Your task to perform on an android device: Check out the new ikea catalog. Image 0: 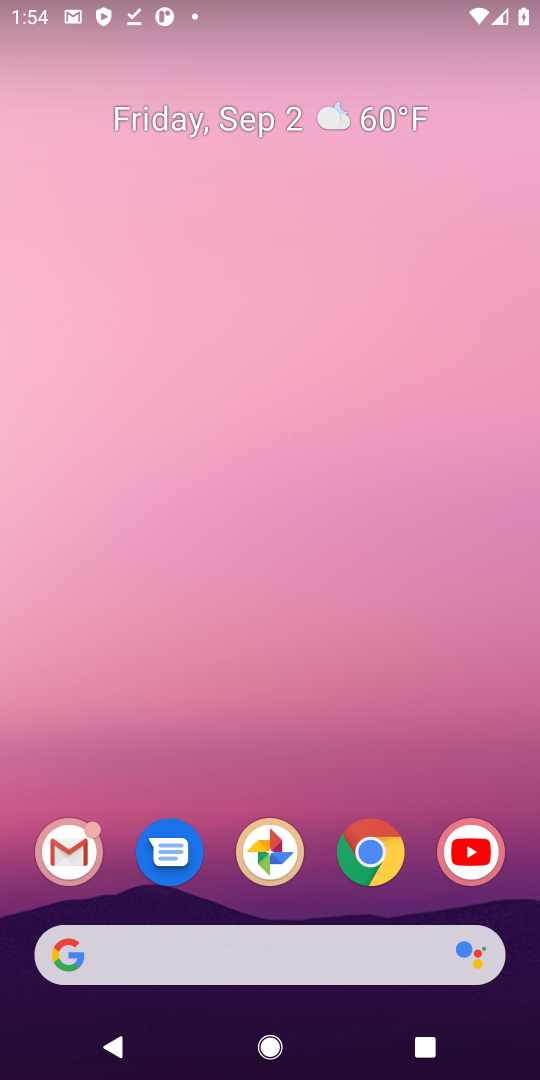
Step 0: drag from (375, 174) to (395, 15)
Your task to perform on an android device: Check out the new ikea catalog. Image 1: 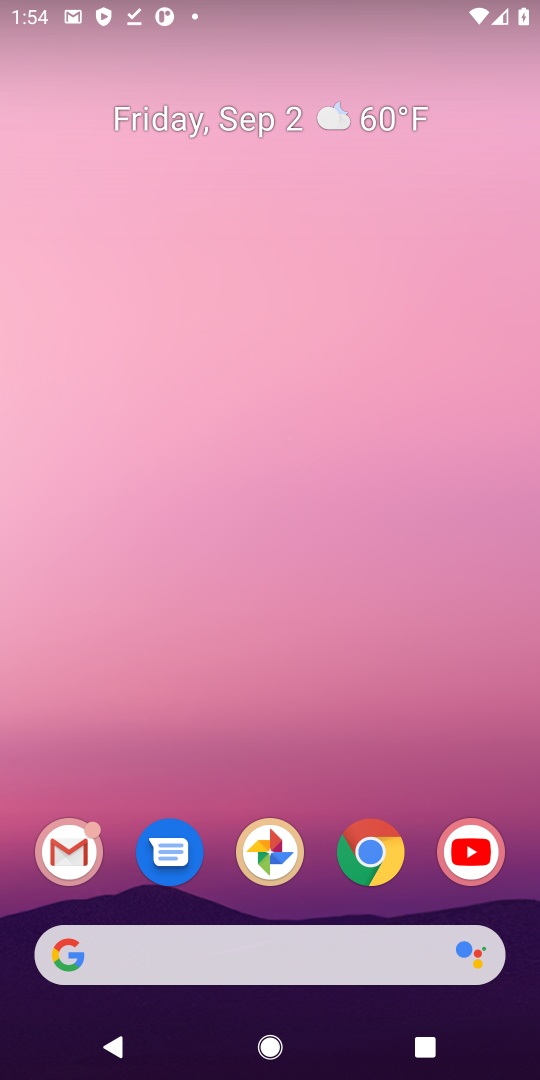
Step 1: drag from (292, 586) to (339, 17)
Your task to perform on an android device: Check out the new ikea catalog. Image 2: 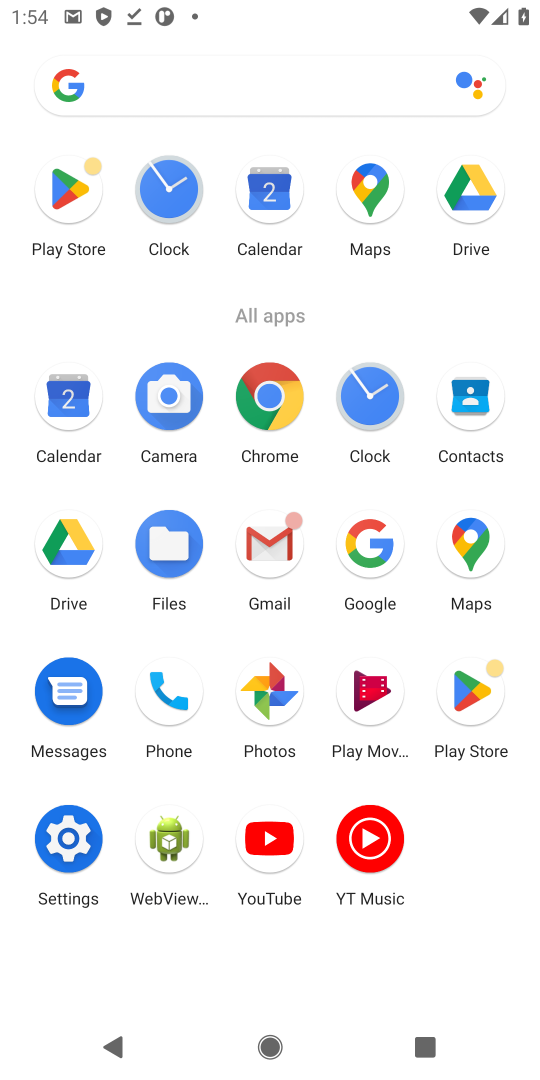
Step 2: click (275, 409)
Your task to perform on an android device: Check out the new ikea catalog. Image 3: 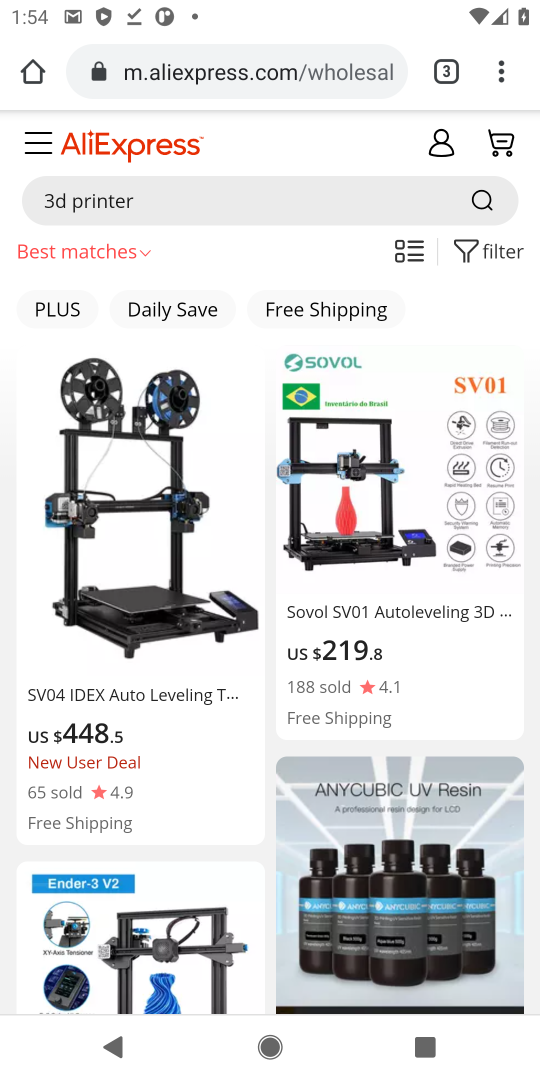
Step 3: click (271, 70)
Your task to perform on an android device: Check out the new ikea catalog. Image 4: 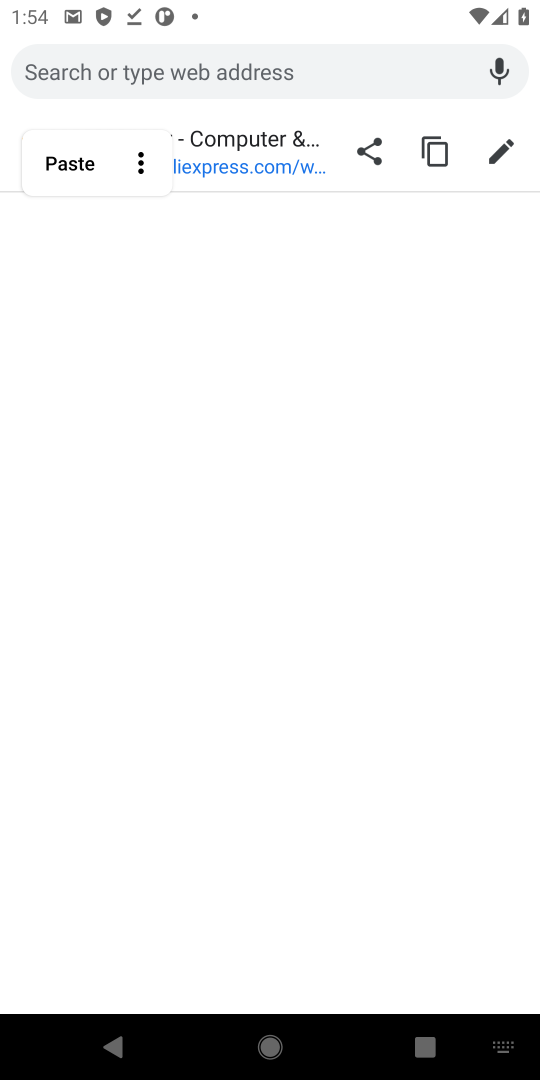
Step 4: type "new ikea catalog"
Your task to perform on an android device: Check out the new ikea catalog. Image 5: 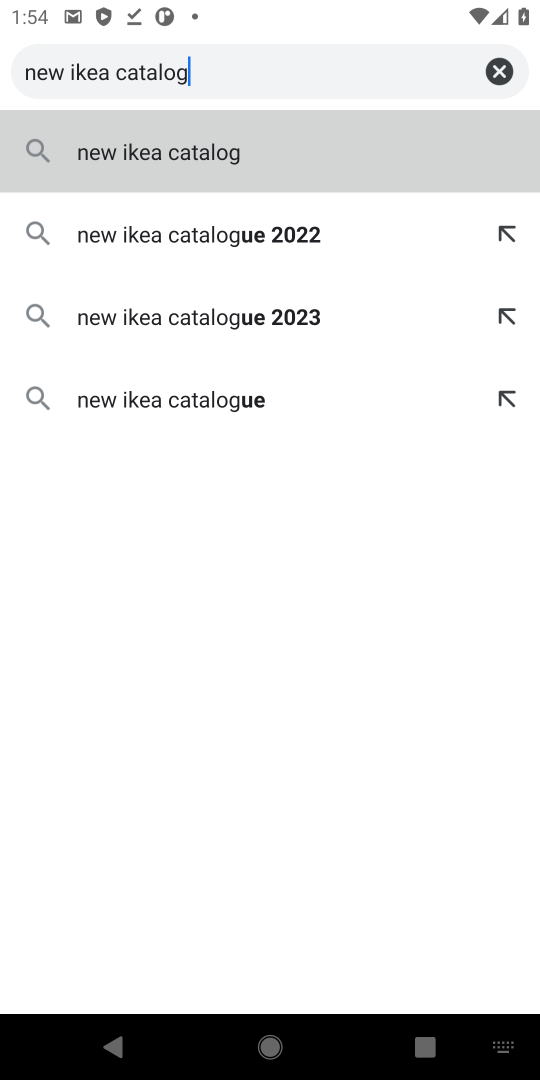
Step 5: press enter
Your task to perform on an android device: Check out the new ikea catalog. Image 6: 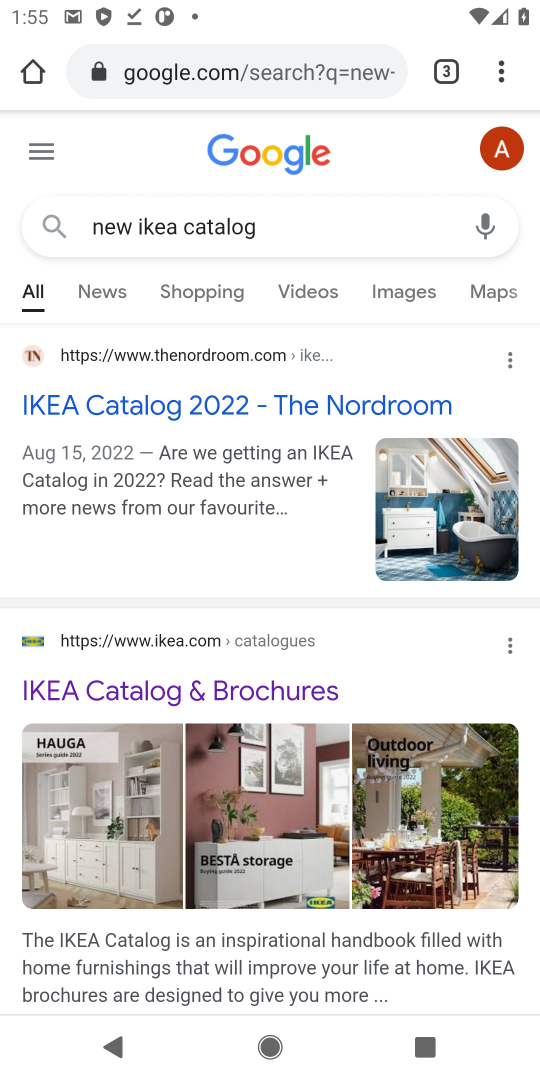
Step 6: click (231, 401)
Your task to perform on an android device: Check out the new ikea catalog. Image 7: 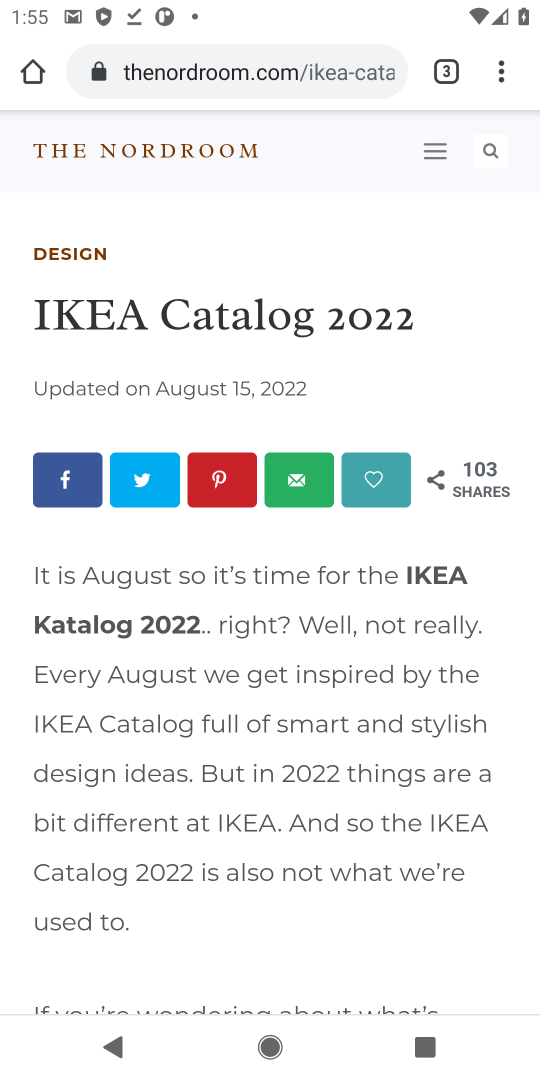
Step 7: click (212, 198)
Your task to perform on an android device: Check out the new ikea catalog. Image 8: 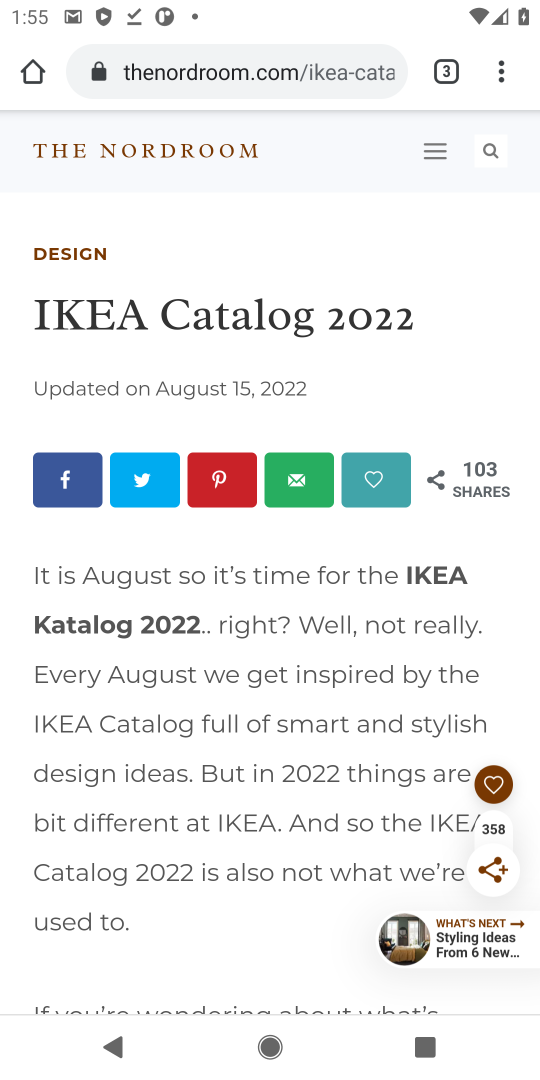
Step 8: drag from (259, 796) to (321, 154)
Your task to perform on an android device: Check out the new ikea catalog. Image 9: 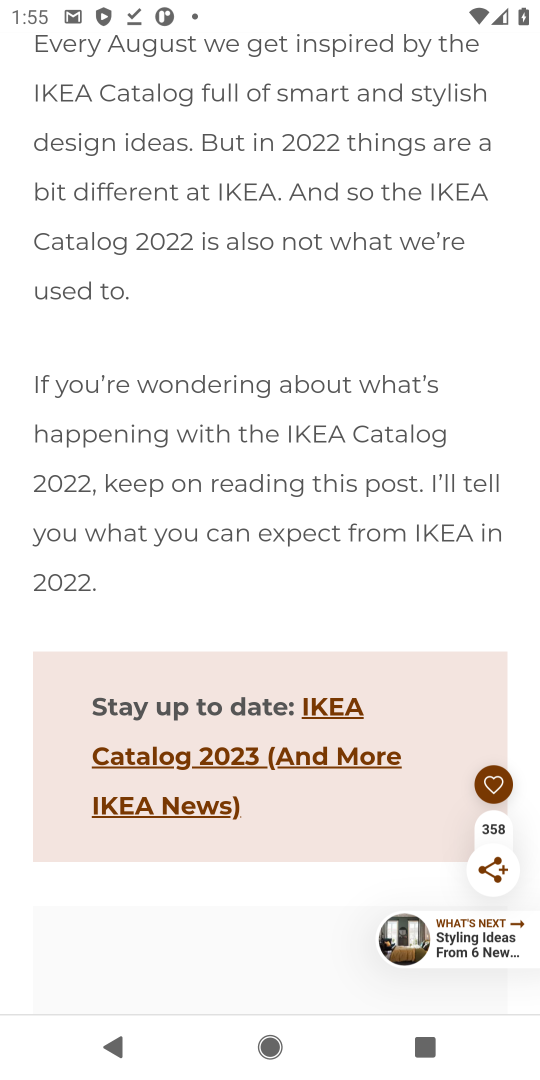
Step 9: drag from (325, 799) to (344, 154)
Your task to perform on an android device: Check out the new ikea catalog. Image 10: 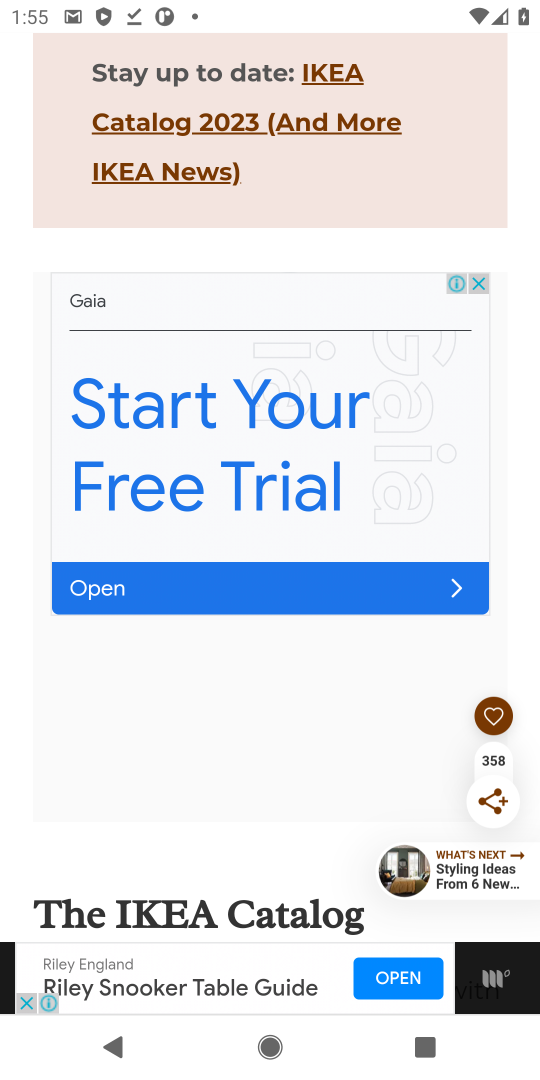
Step 10: click (313, 927)
Your task to perform on an android device: Check out the new ikea catalog. Image 11: 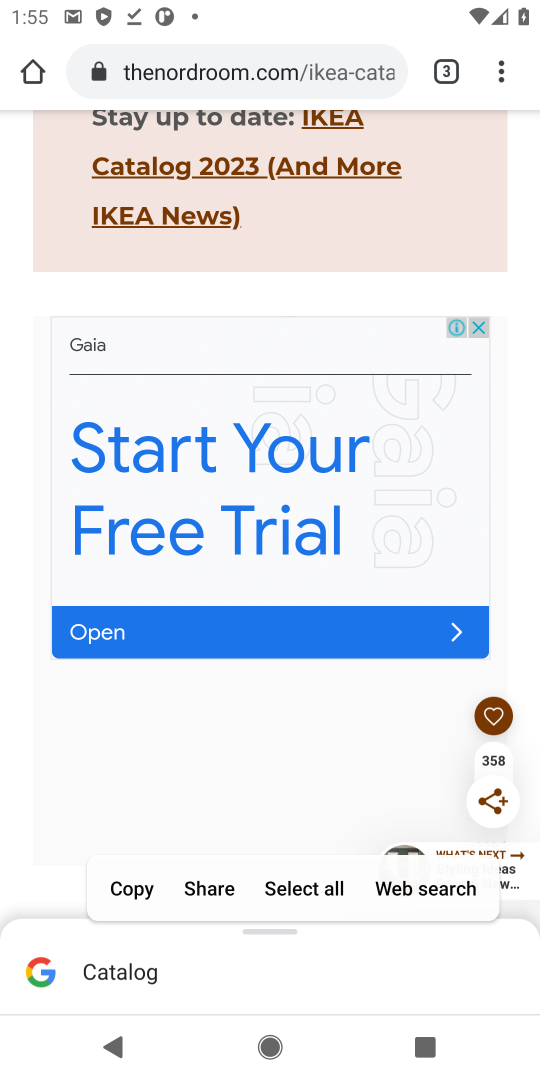
Step 11: drag from (296, 809) to (379, 3)
Your task to perform on an android device: Check out the new ikea catalog. Image 12: 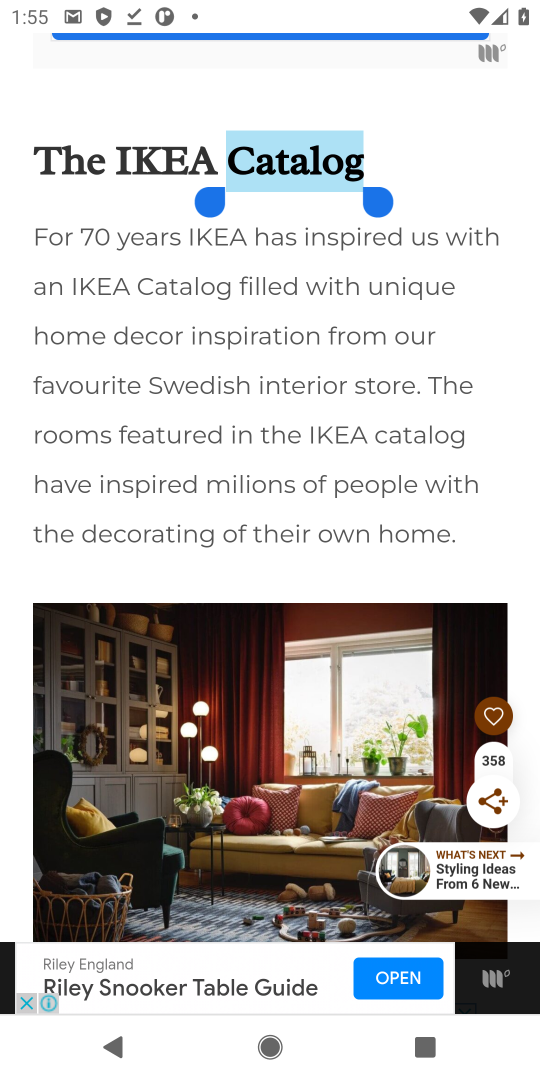
Step 12: click (259, 862)
Your task to perform on an android device: Check out the new ikea catalog. Image 13: 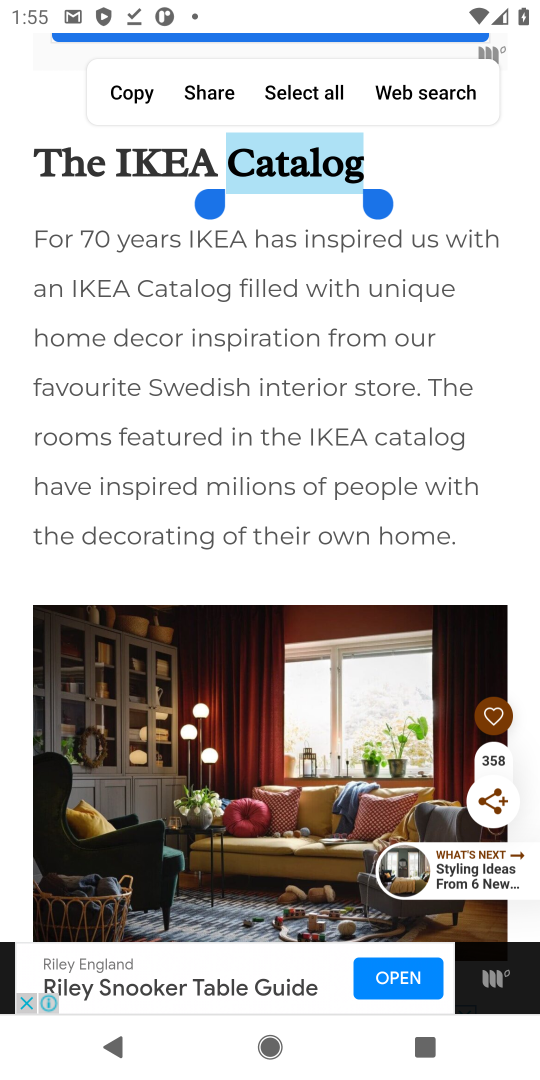
Step 13: click (332, 426)
Your task to perform on an android device: Check out the new ikea catalog. Image 14: 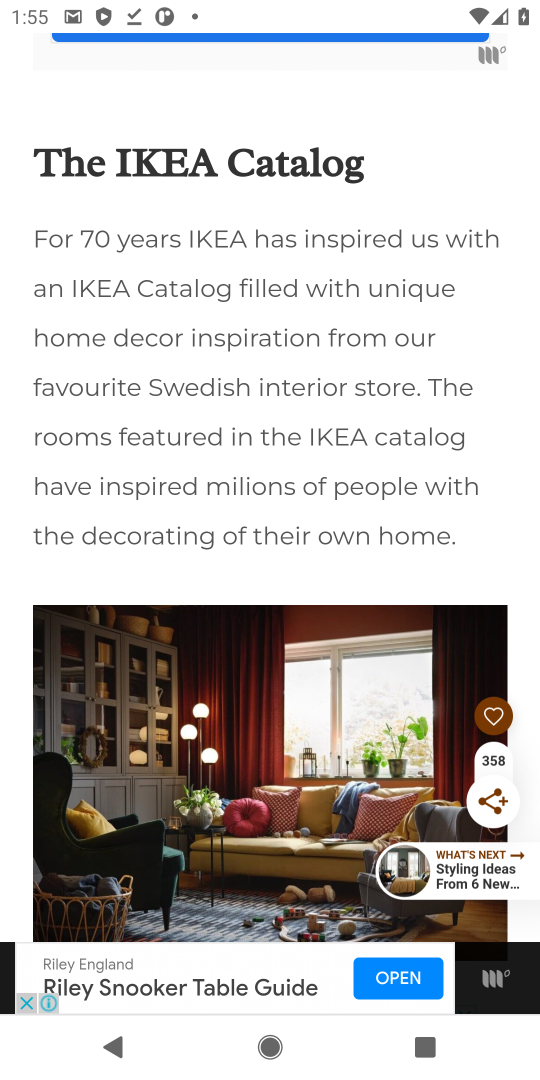
Step 14: task complete